Your task to perform on an android device: search for starred emails in the gmail app Image 0: 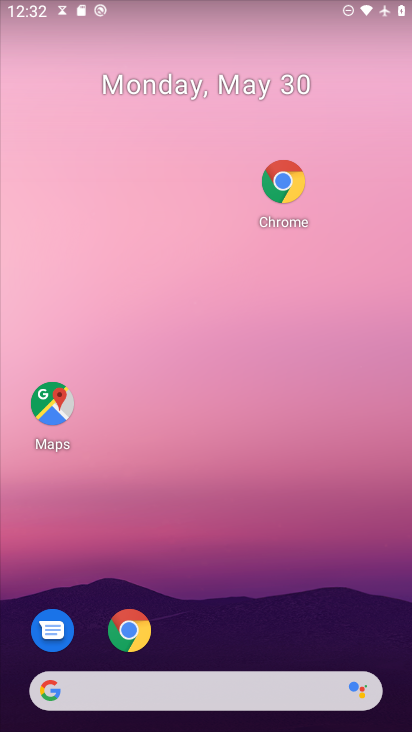
Step 0: drag from (244, 706) to (171, 183)
Your task to perform on an android device: search for starred emails in the gmail app Image 1: 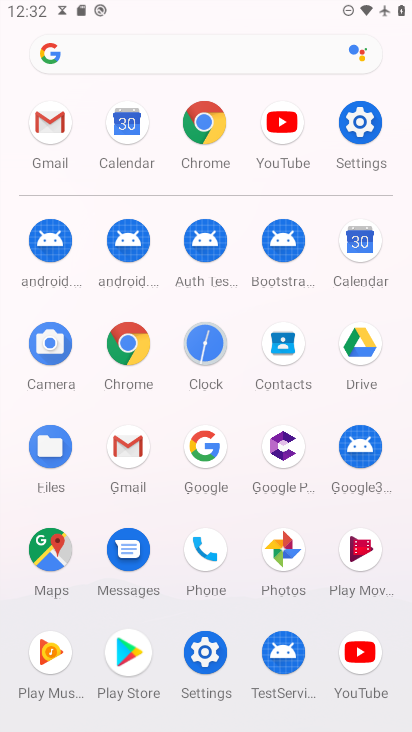
Step 1: click (125, 447)
Your task to perform on an android device: search for starred emails in the gmail app Image 2: 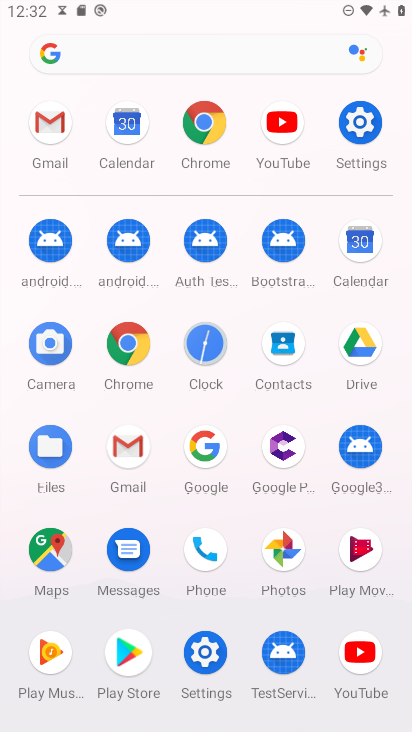
Step 2: click (125, 447)
Your task to perform on an android device: search for starred emails in the gmail app Image 3: 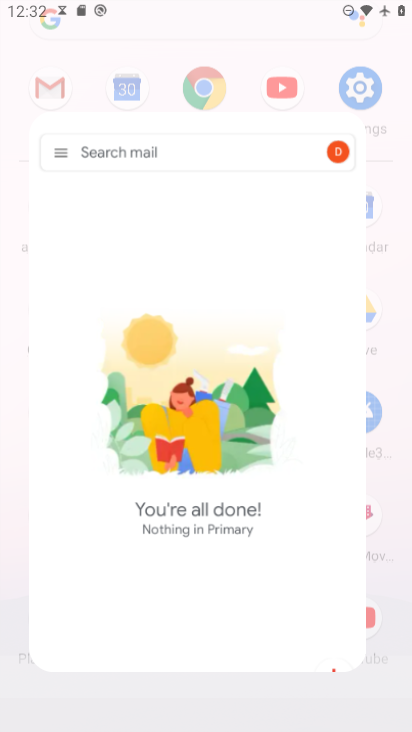
Step 3: click (125, 447)
Your task to perform on an android device: search for starred emails in the gmail app Image 4: 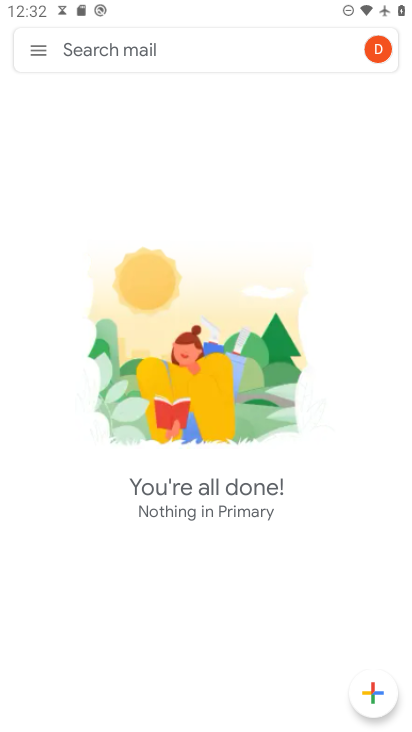
Step 4: click (41, 47)
Your task to perform on an android device: search for starred emails in the gmail app Image 5: 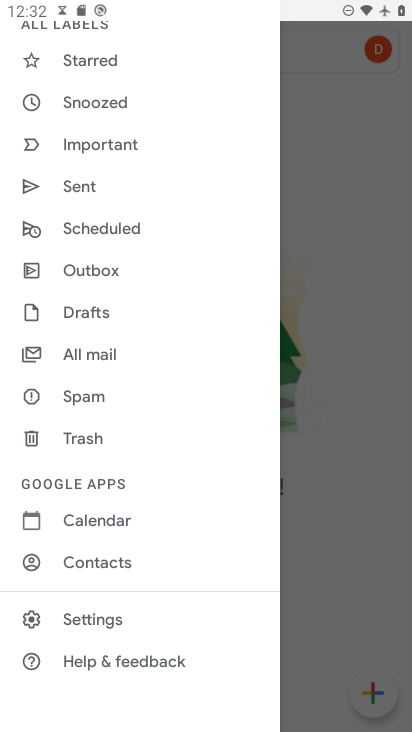
Step 5: click (87, 60)
Your task to perform on an android device: search for starred emails in the gmail app Image 6: 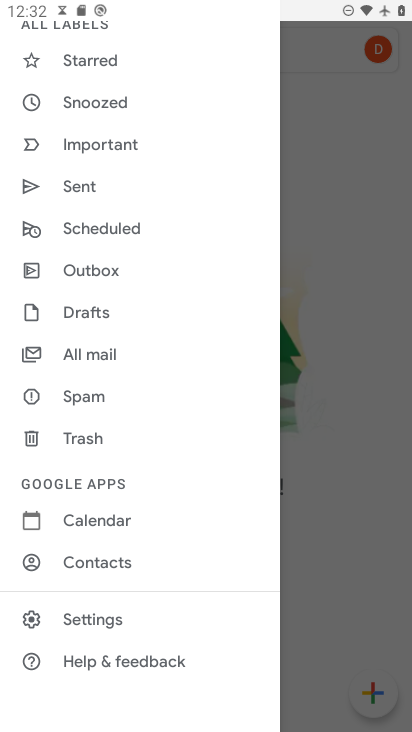
Step 6: click (87, 60)
Your task to perform on an android device: search for starred emails in the gmail app Image 7: 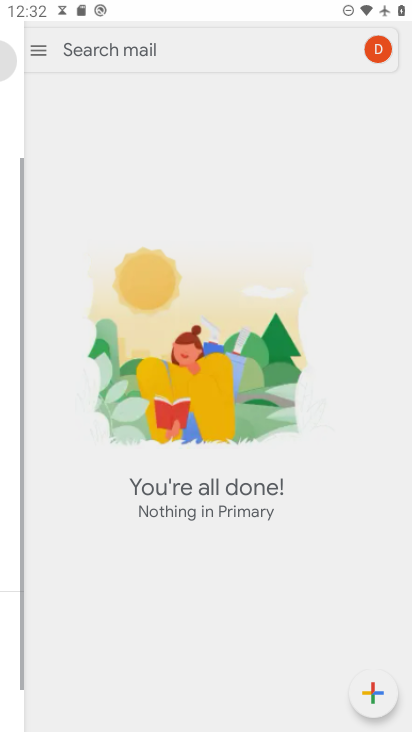
Step 7: click (90, 60)
Your task to perform on an android device: search for starred emails in the gmail app Image 8: 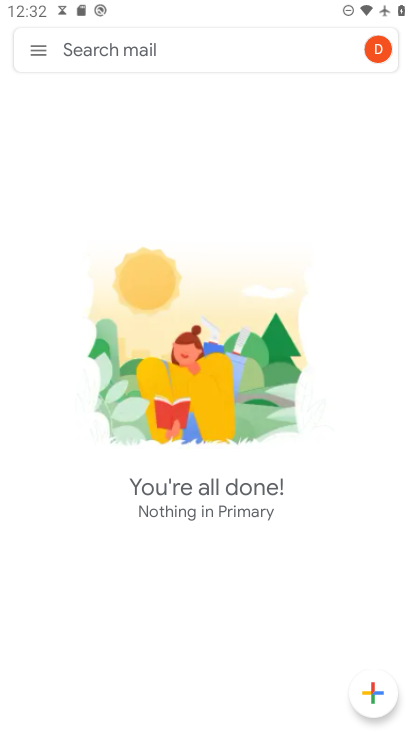
Step 8: click (90, 60)
Your task to perform on an android device: search for starred emails in the gmail app Image 9: 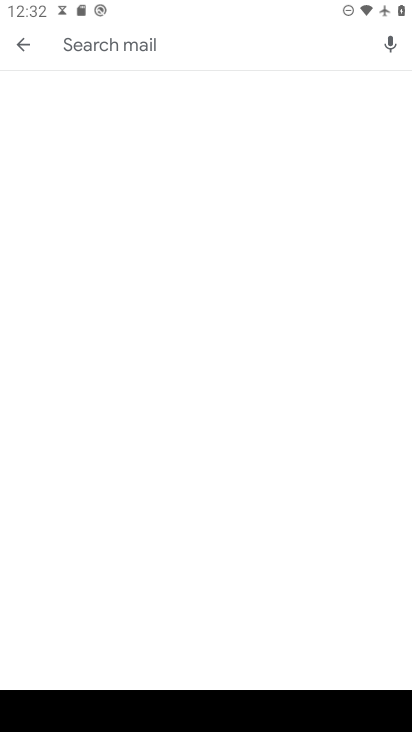
Step 9: task complete